Your task to perform on an android device: Open Google Maps and go to "Timeline" Image 0: 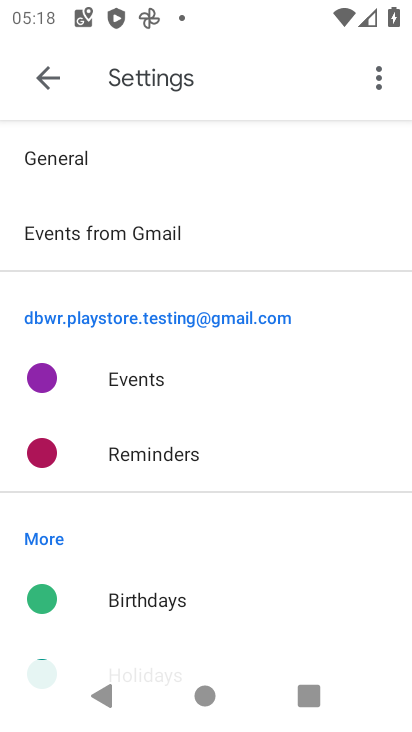
Step 0: click (53, 76)
Your task to perform on an android device: Open Google Maps and go to "Timeline" Image 1: 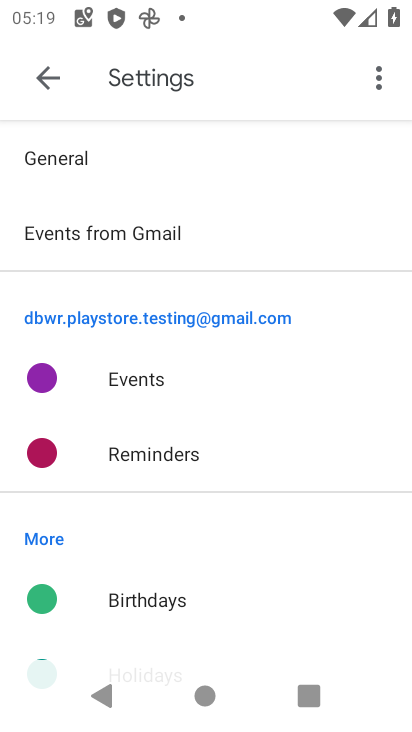
Step 1: press home button
Your task to perform on an android device: Open Google Maps and go to "Timeline" Image 2: 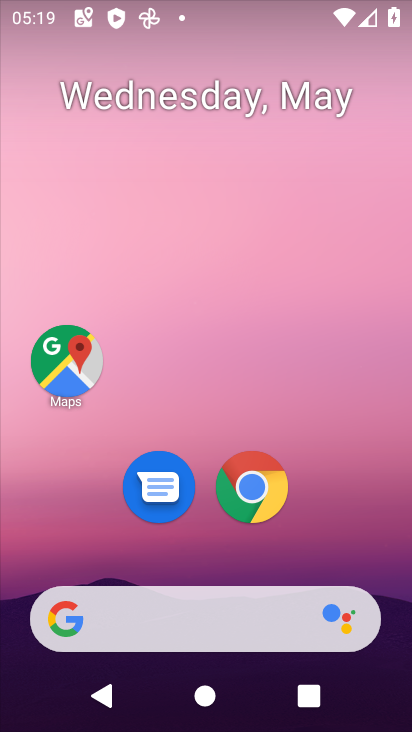
Step 2: click (46, 376)
Your task to perform on an android device: Open Google Maps and go to "Timeline" Image 3: 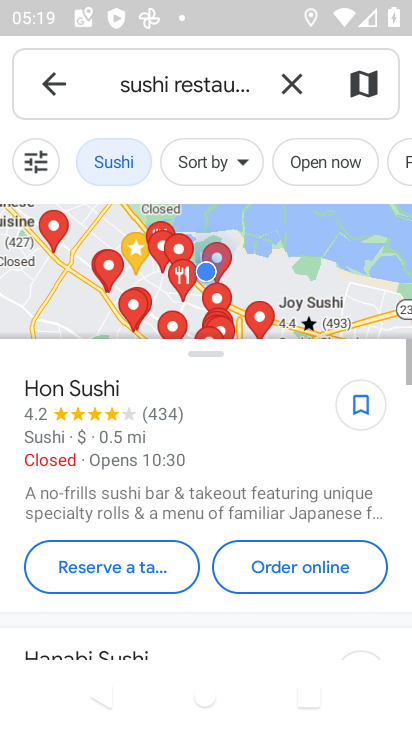
Step 3: click (47, 115)
Your task to perform on an android device: Open Google Maps and go to "Timeline" Image 4: 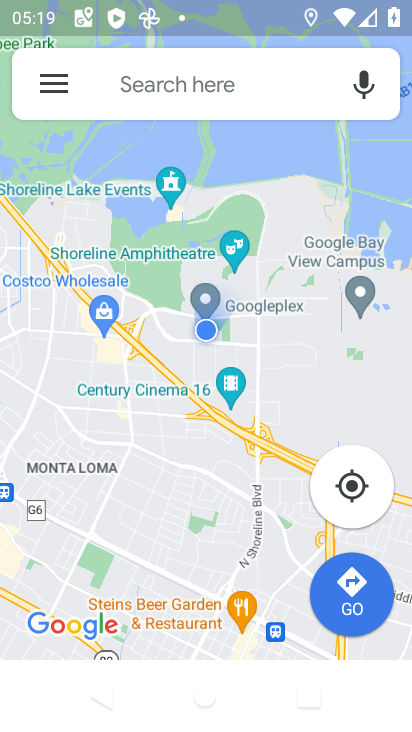
Step 4: click (46, 88)
Your task to perform on an android device: Open Google Maps and go to "Timeline" Image 5: 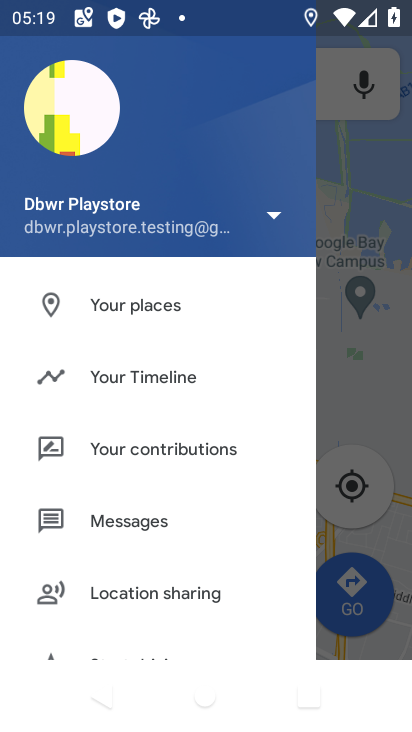
Step 5: click (89, 378)
Your task to perform on an android device: Open Google Maps and go to "Timeline" Image 6: 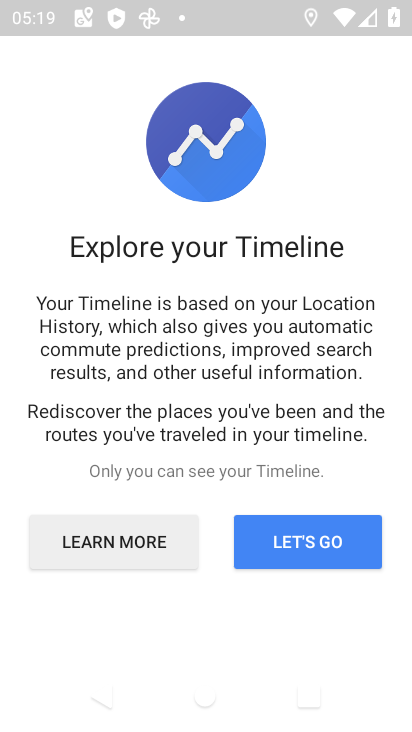
Step 6: task complete